Your task to perform on an android device: Search for pizza restaurants on Maps Image 0: 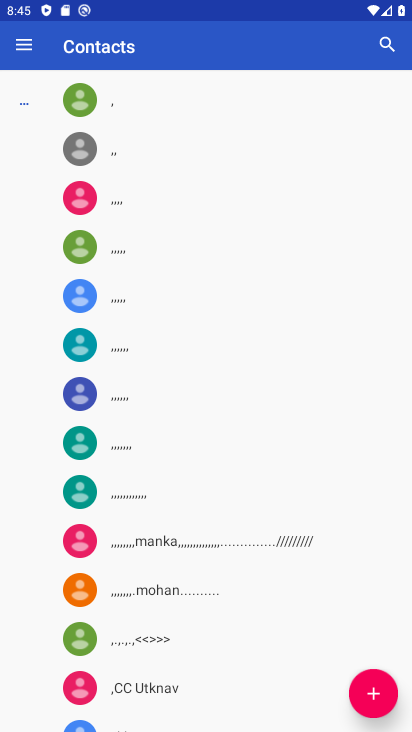
Step 0: press home button
Your task to perform on an android device: Search for pizza restaurants on Maps Image 1: 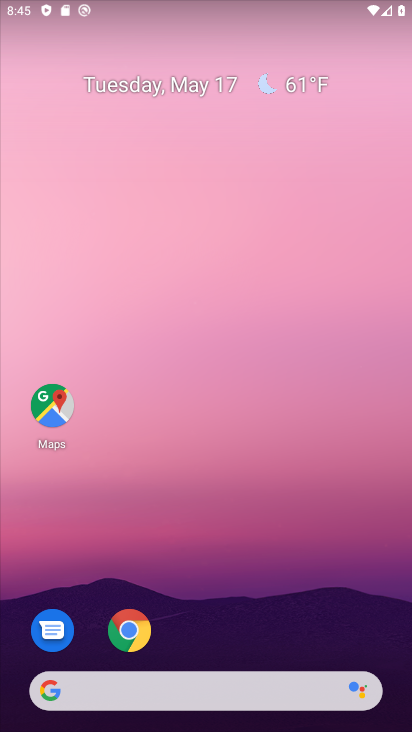
Step 1: click (69, 410)
Your task to perform on an android device: Search for pizza restaurants on Maps Image 2: 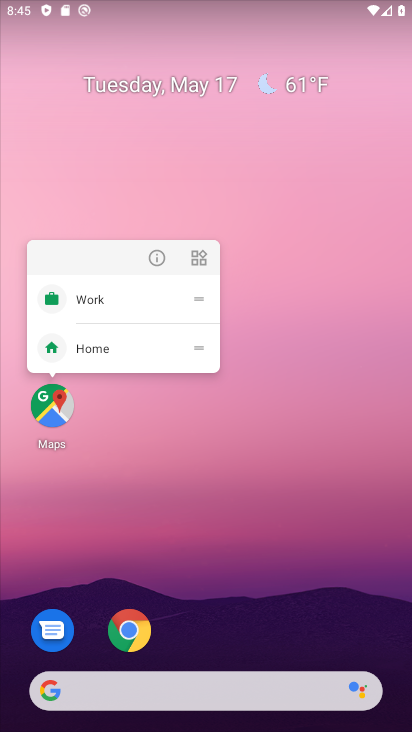
Step 2: click (66, 410)
Your task to perform on an android device: Search for pizza restaurants on Maps Image 3: 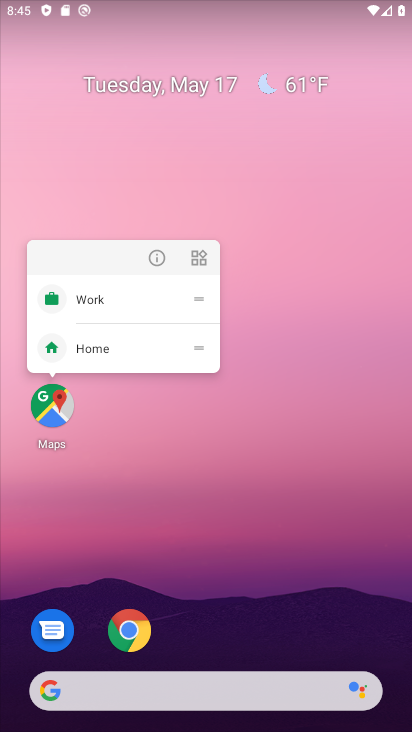
Step 3: click (39, 415)
Your task to perform on an android device: Search for pizza restaurants on Maps Image 4: 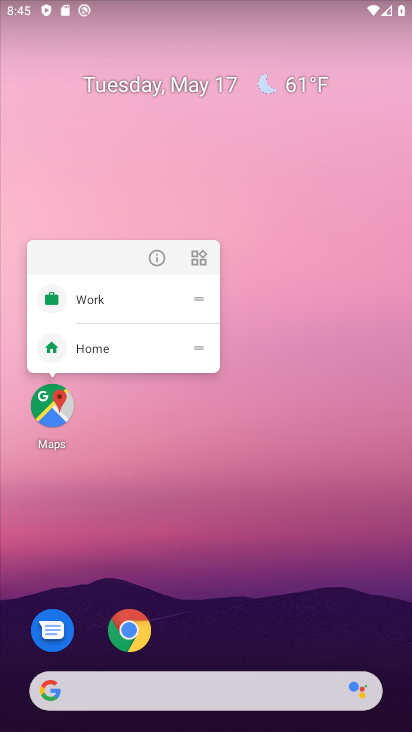
Step 4: click (41, 419)
Your task to perform on an android device: Search for pizza restaurants on Maps Image 5: 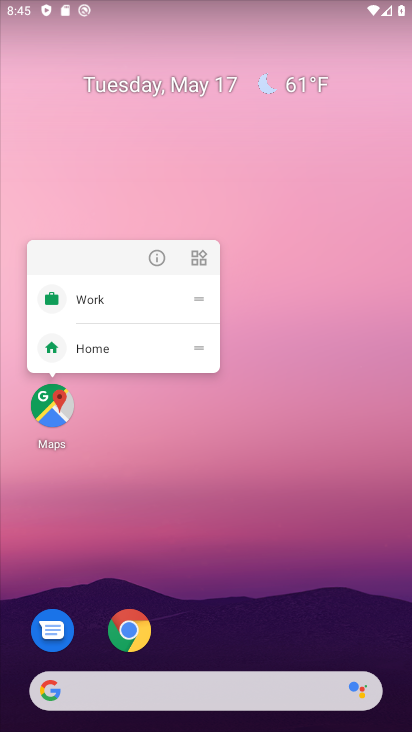
Step 5: click (53, 429)
Your task to perform on an android device: Search for pizza restaurants on Maps Image 6: 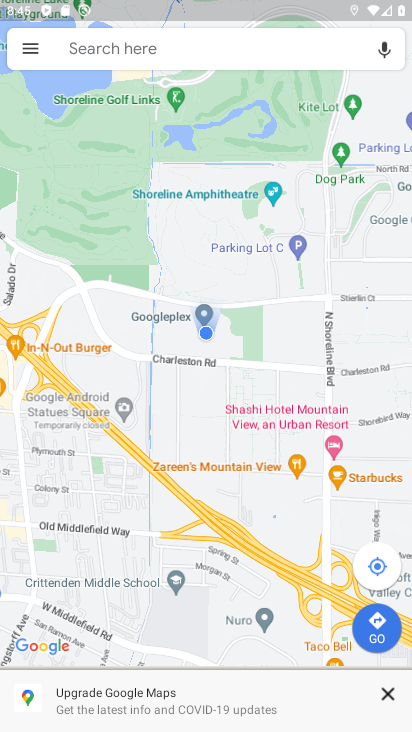
Step 6: click (167, 49)
Your task to perform on an android device: Search for pizza restaurants on Maps Image 7: 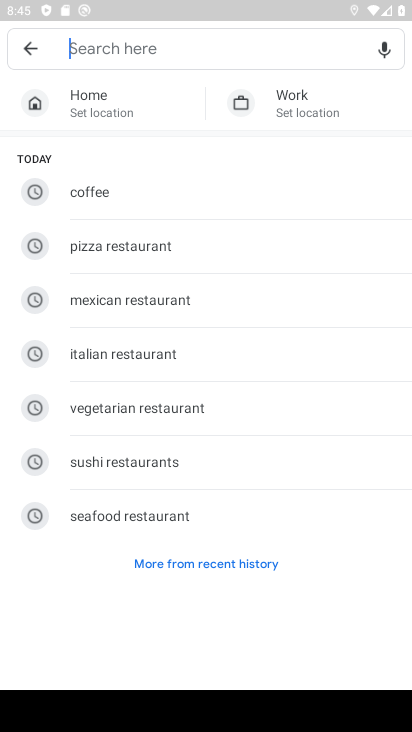
Step 7: type "Pizza restaurants"
Your task to perform on an android device: Search for pizza restaurants on Maps Image 8: 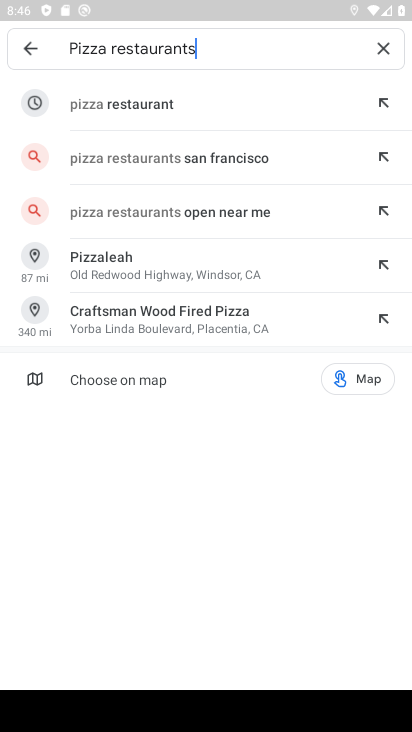
Step 8: click (187, 108)
Your task to perform on an android device: Search for pizza restaurants on Maps Image 9: 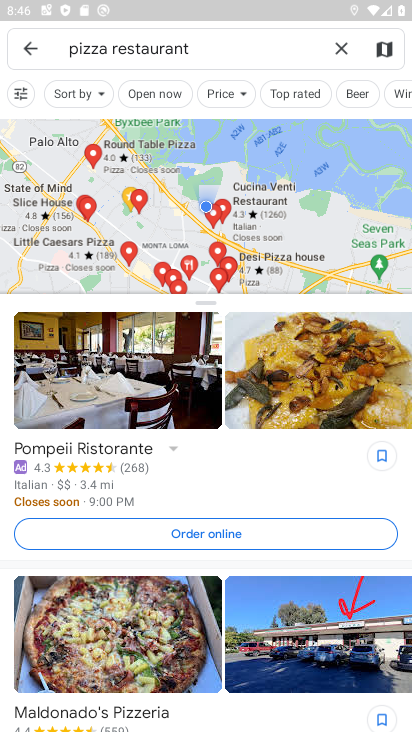
Step 9: task complete